Your task to perform on an android device: Search for sushi restaurants on Maps Image 0: 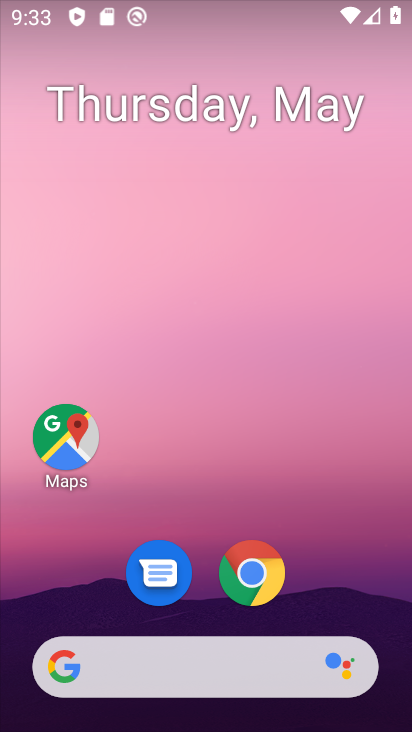
Step 0: click (89, 451)
Your task to perform on an android device: Search for sushi restaurants on Maps Image 1: 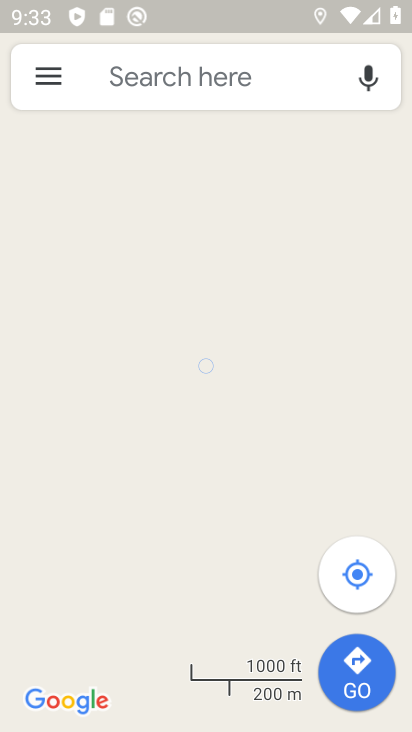
Step 1: click (188, 79)
Your task to perform on an android device: Search for sushi restaurants on Maps Image 2: 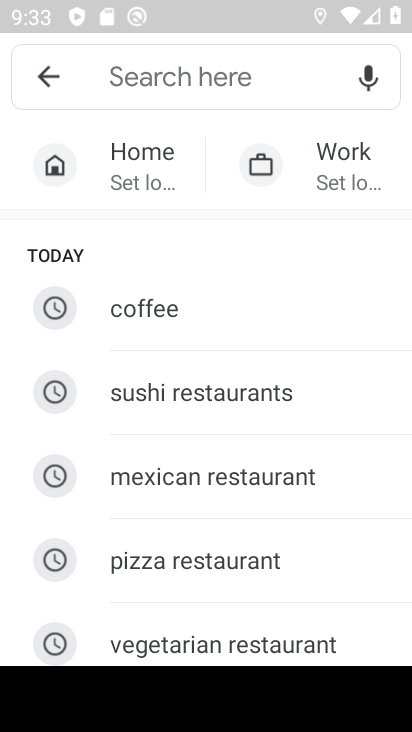
Step 2: type "sushi restaurants"
Your task to perform on an android device: Search for sushi restaurants on Maps Image 3: 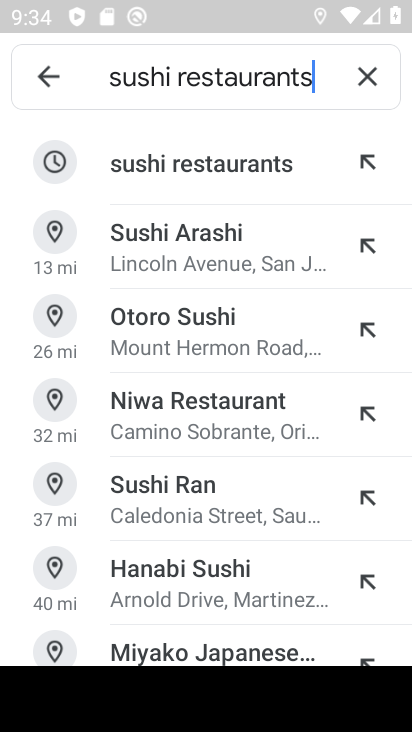
Step 3: click (187, 173)
Your task to perform on an android device: Search for sushi restaurants on Maps Image 4: 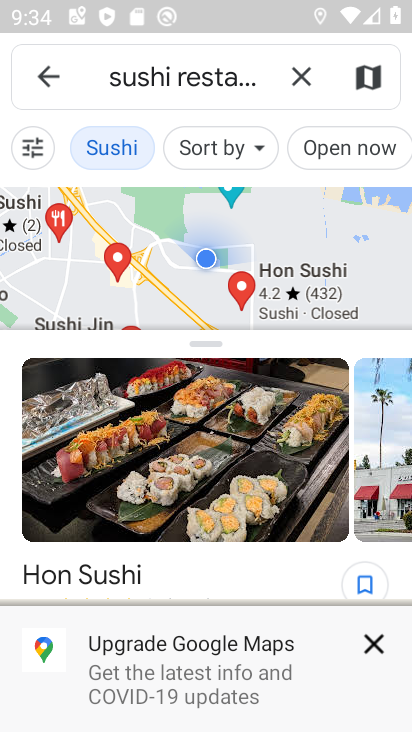
Step 4: task complete